Your task to perform on an android device: turn pop-ups on in chrome Image 0: 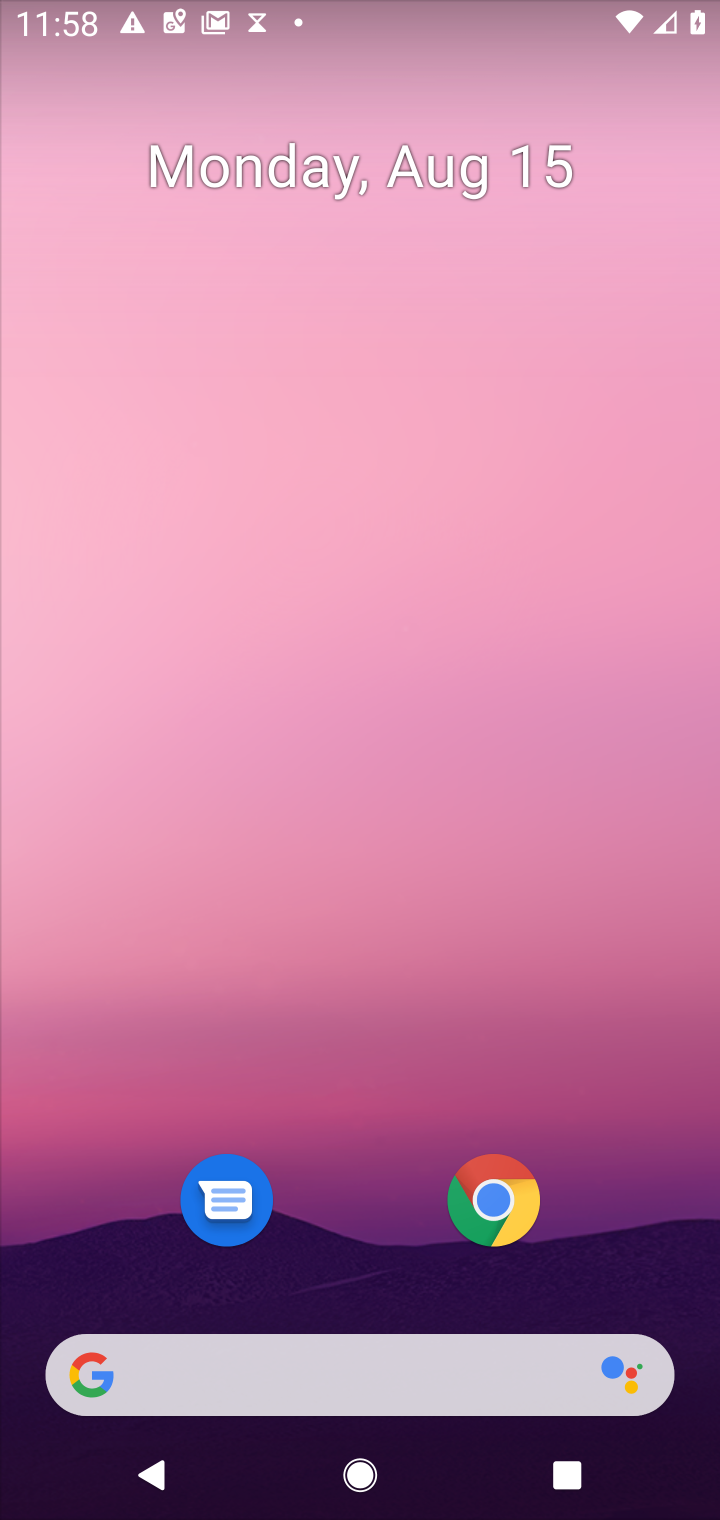
Step 0: click (484, 1237)
Your task to perform on an android device: turn pop-ups on in chrome Image 1: 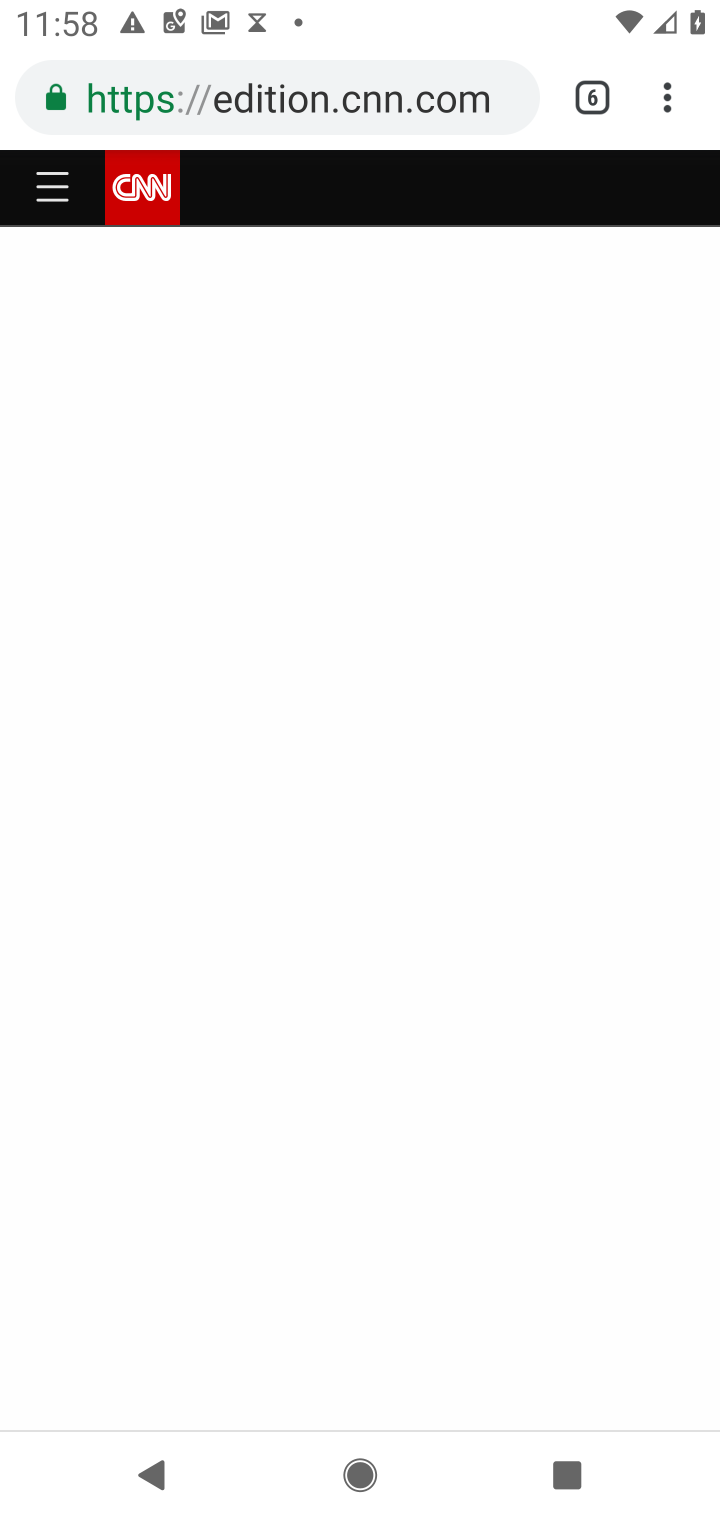
Step 1: click (666, 97)
Your task to perform on an android device: turn pop-ups on in chrome Image 2: 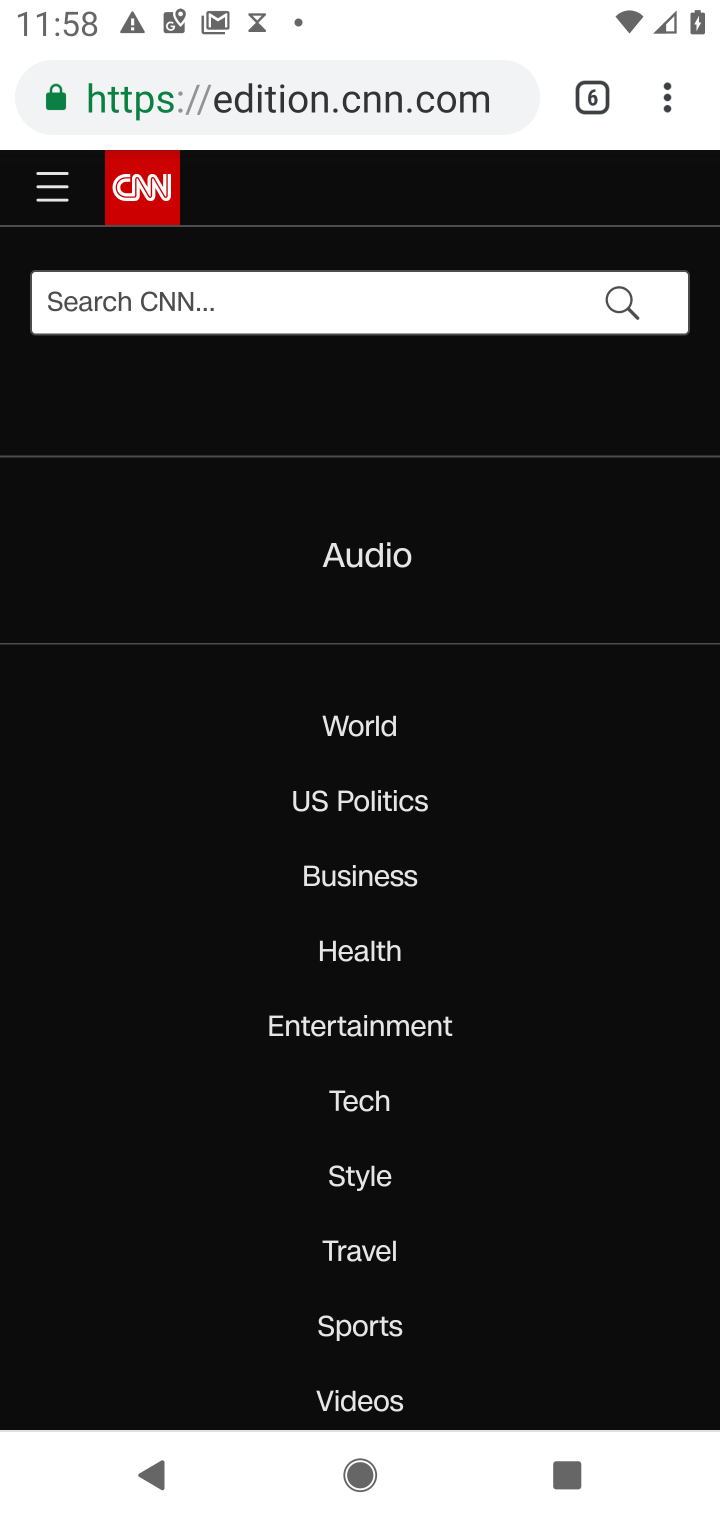
Step 2: click (666, 97)
Your task to perform on an android device: turn pop-ups on in chrome Image 3: 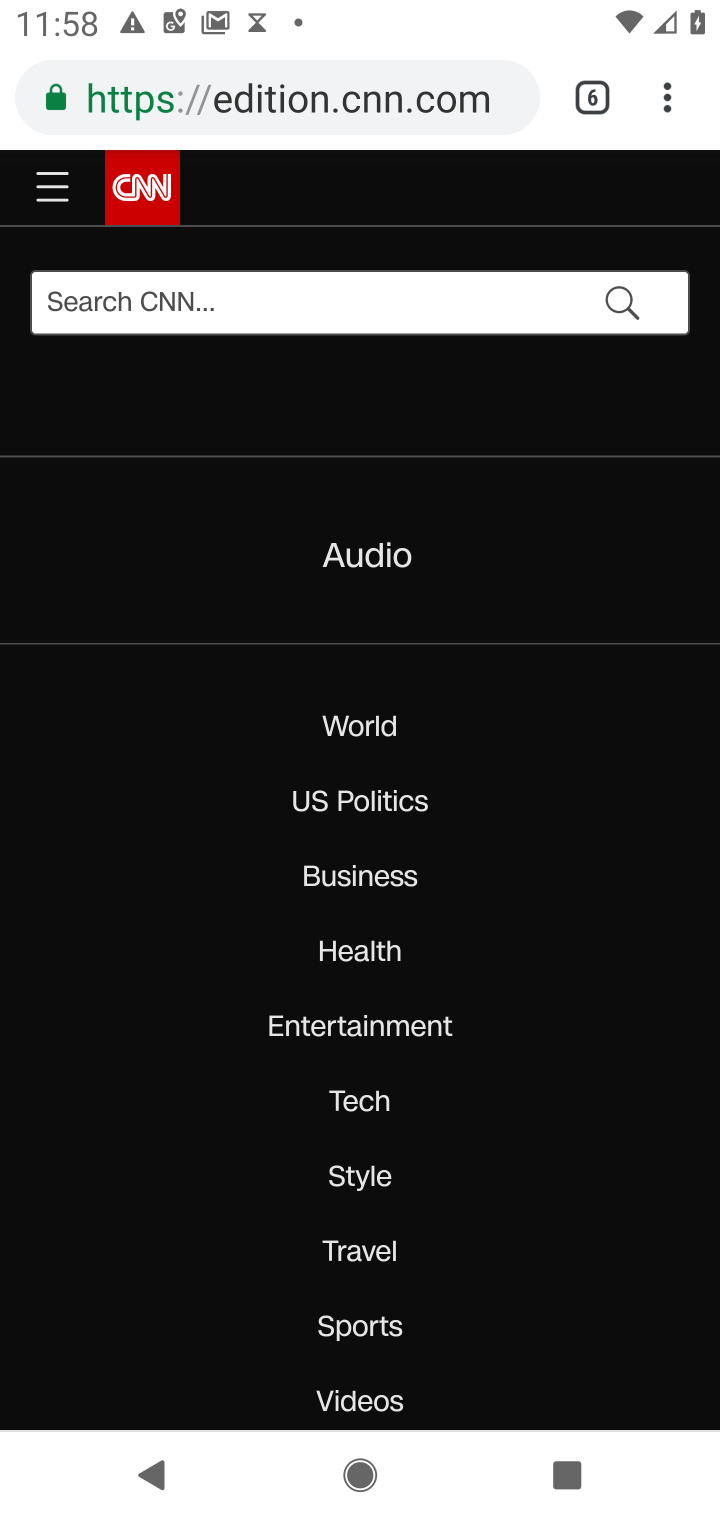
Step 3: drag from (671, 100) to (341, 1160)
Your task to perform on an android device: turn pop-ups on in chrome Image 4: 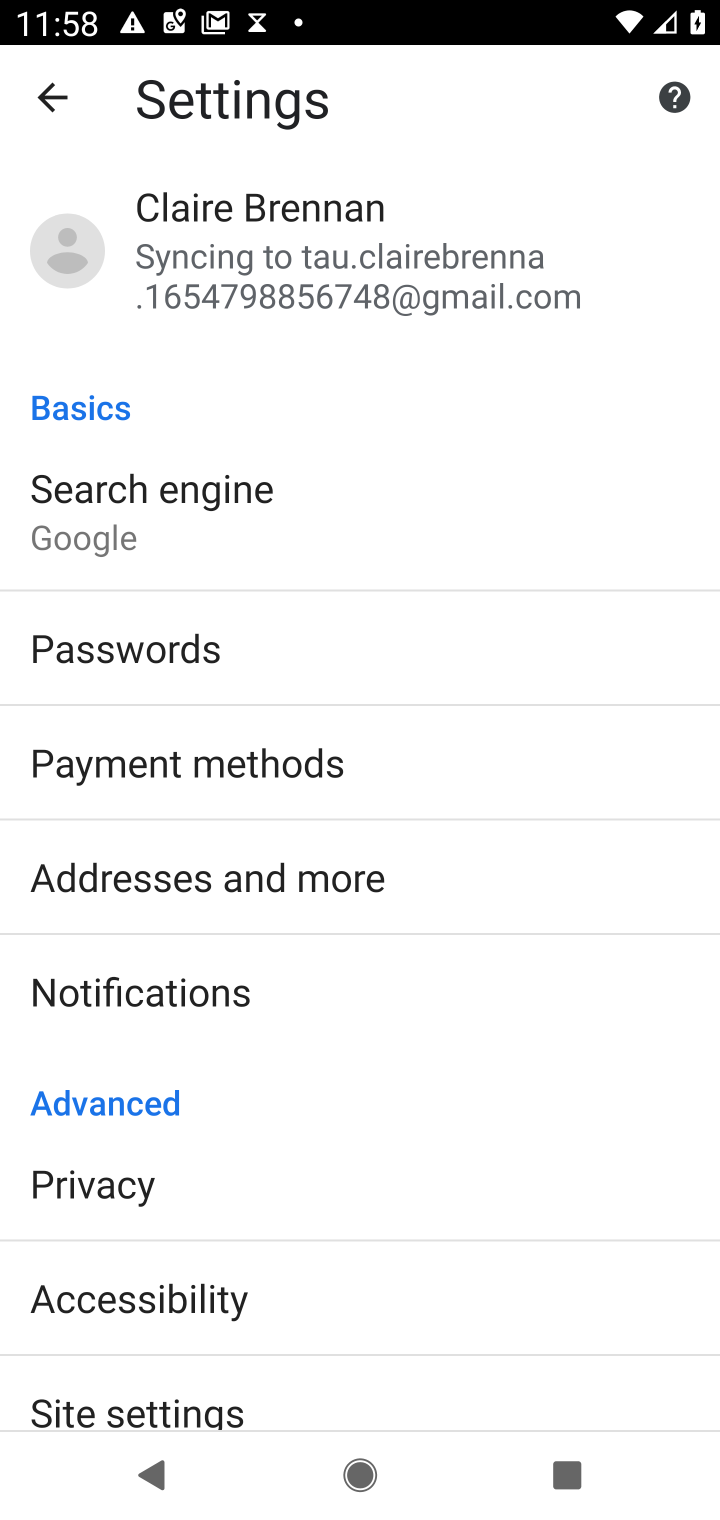
Step 4: drag from (395, 1205) to (481, 661)
Your task to perform on an android device: turn pop-ups on in chrome Image 5: 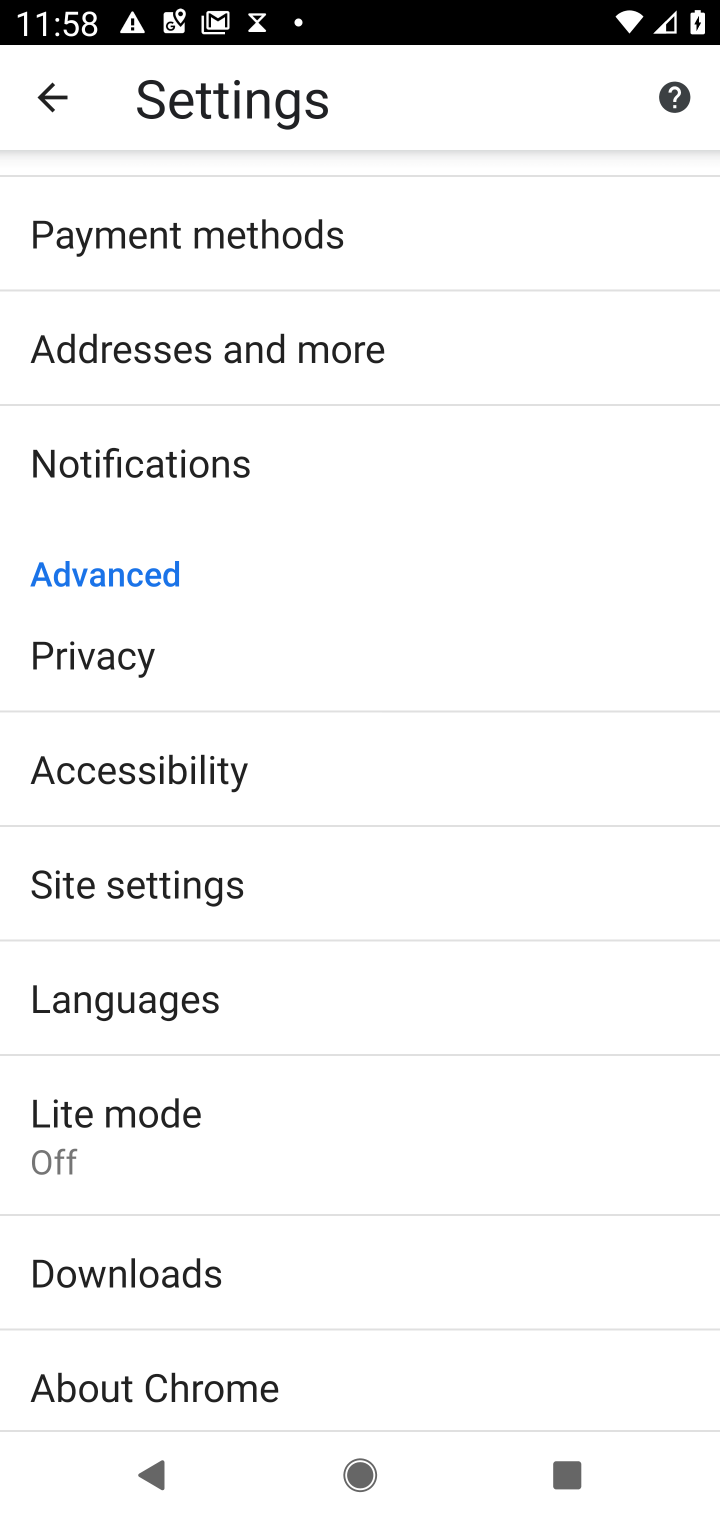
Step 5: click (286, 863)
Your task to perform on an android device: turn pop-ups on in chrome Image 6: 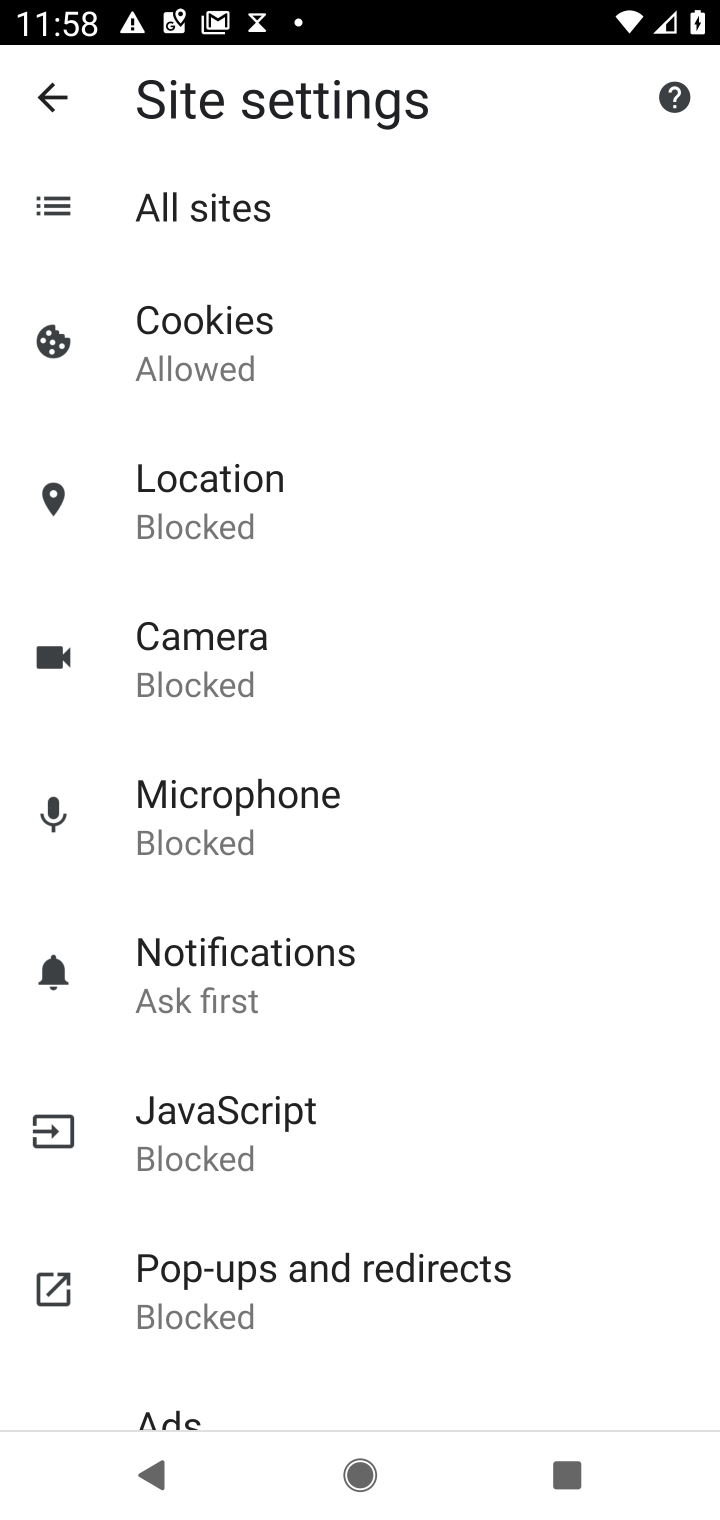
Step 6: click (287, 1249)
Your task to perform on an android device: turn pop-ups on in chrome Image 7: 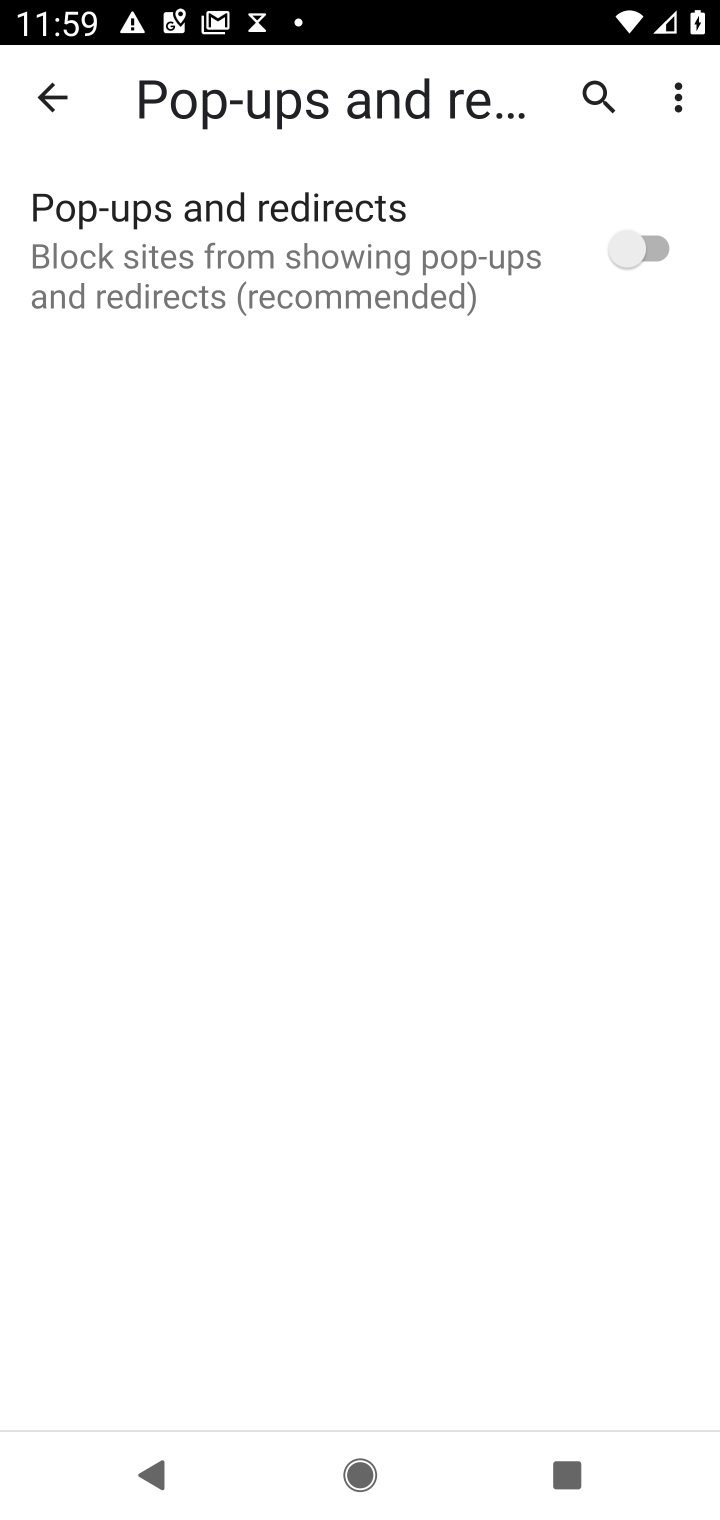
Step 7: click (628, 212)
Your task to perform on an android device: turn pop-ups on in chrome Image 8: 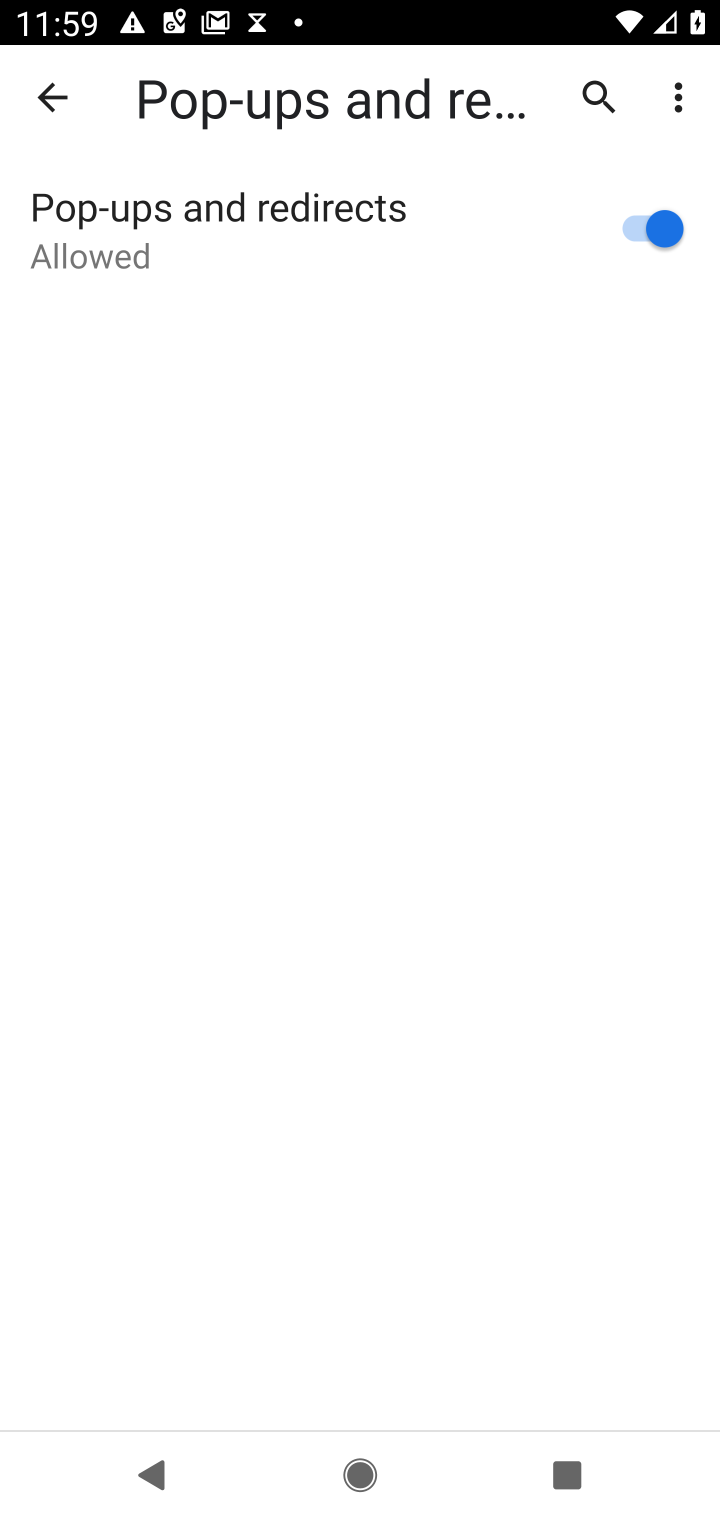
Step 8: task complete